Your task to perform on an android device: move an email to a new category in the gmail app Image 0: 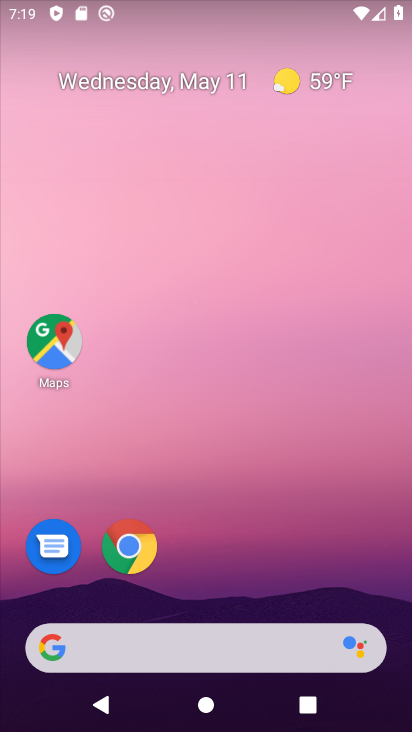
Step 0: drag from (298, 547) to (274, 157)
Your task to perform on an android device: move an email to a new category in the gmail app Image 1: 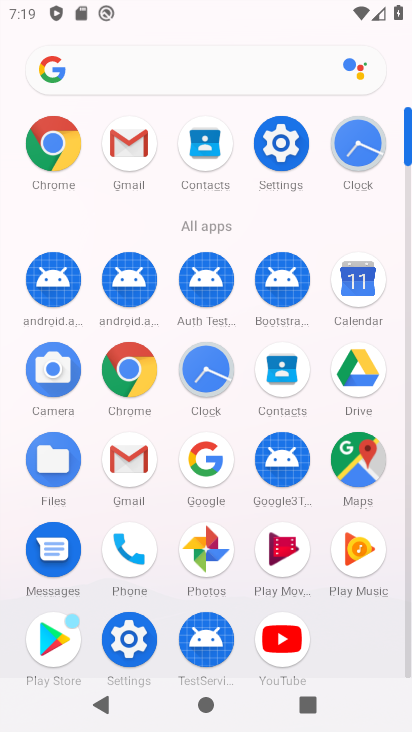
Step 1: click (136, 461)
Your task to perform on an android device: move an email to a new category in the gmail app Image 2: 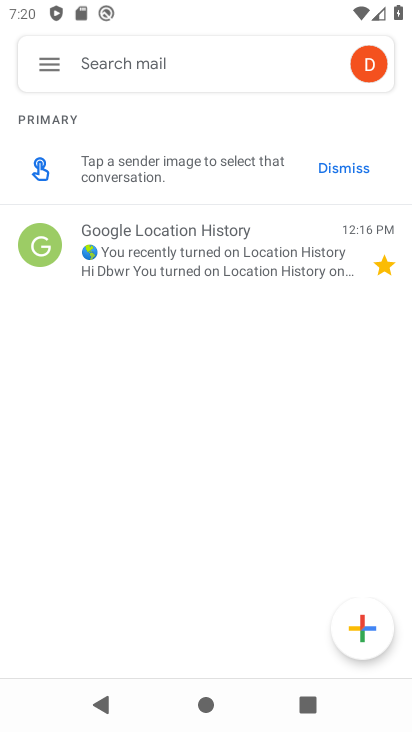
Step 2: click (51, 62)
Your task to perform on an android device: move an email to a new category in the gmail app Image 3: 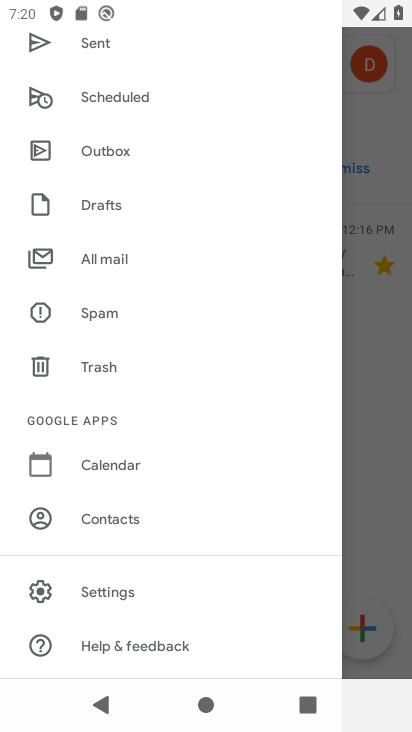
Step 3: drag from (249, 592) to (229, 386)
Your task to perform on an android device: move an email to a new category in the gmail app Image 4: 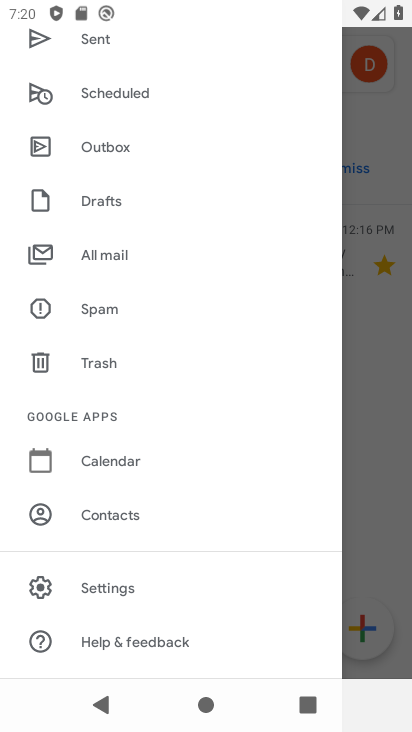
Step 4: click (113, 251)
Your task to perform on an android device: move an email to a new category in the gmail app Image 5: 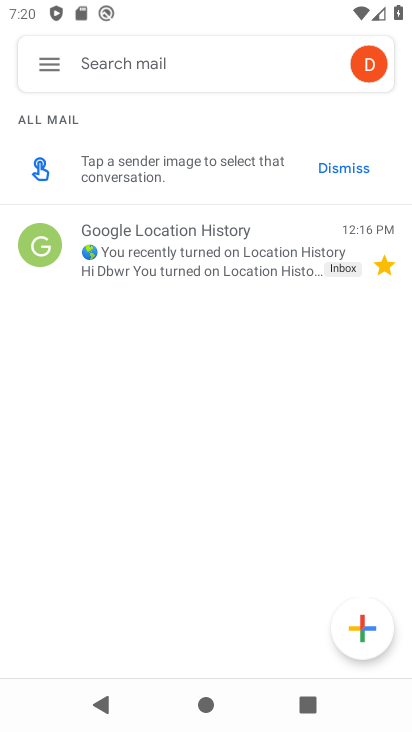
Step 5: click (226, 264)
Your task to perform on an android device: move an email to a new category in the gmail app Image 6: 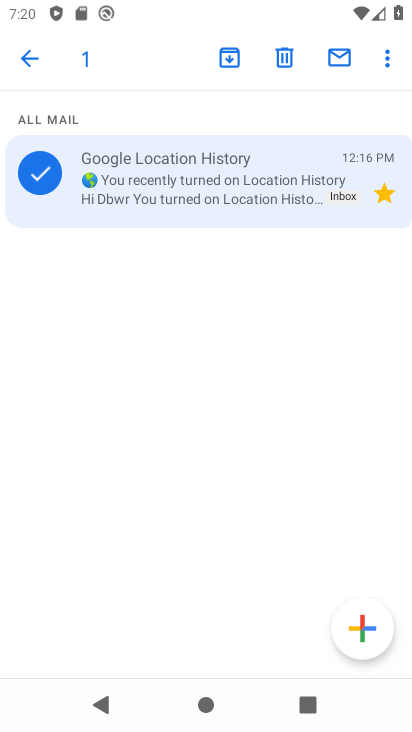
Step 6: click (383, 58)
Your task to perform on an android device: move an email to a new category in the gmail app Image 7: 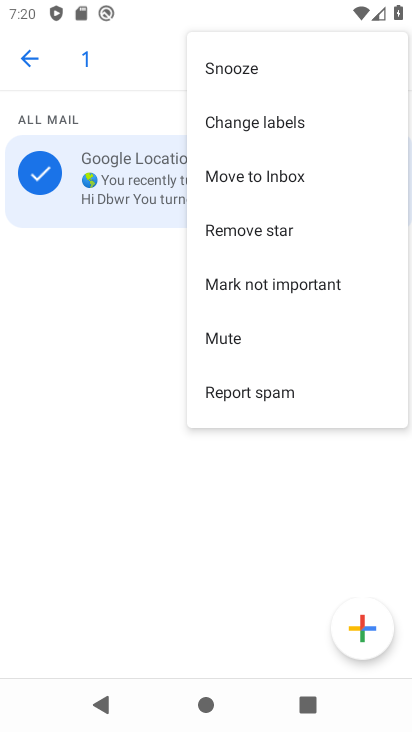
Step 7: click (246, 182)
Your task to perform on an android device: move an email to a new category in the gmail app Image 8: 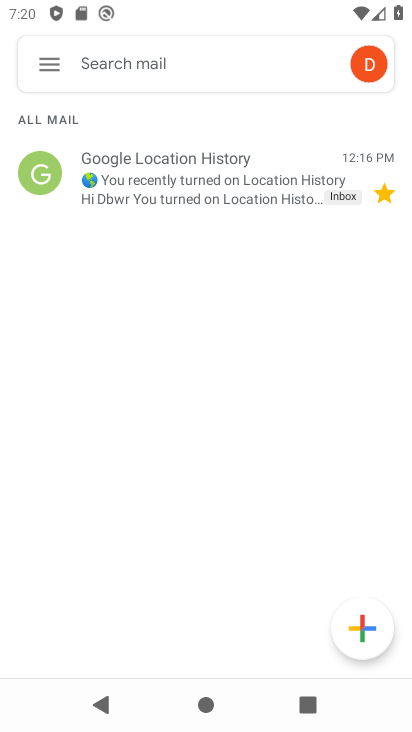
Step 8: task complete